Your task to perform on an android device: Open Maps and search for coffee Image 0: 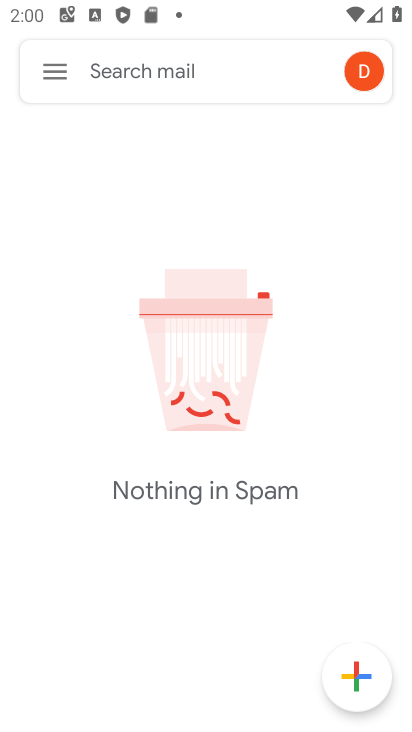
Step 0: drag from (246, 574) to (264, 186)
Your task to perform on an android device: Open Maps and search for coffee Image 1: 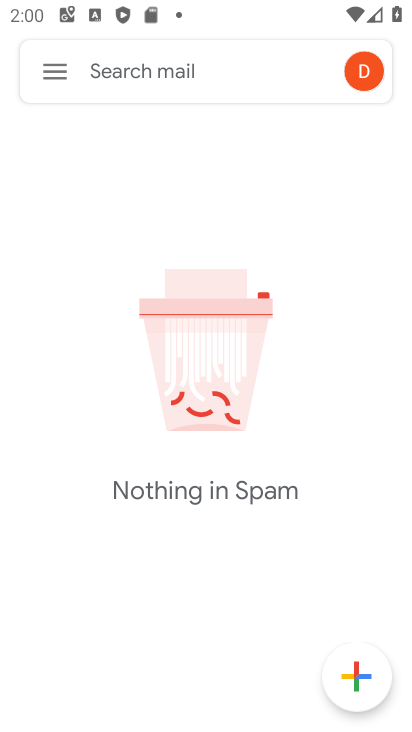
Step 1: click (63, 66)
Your task to perform on an android device: Open Maps and search for coffee Image 2: 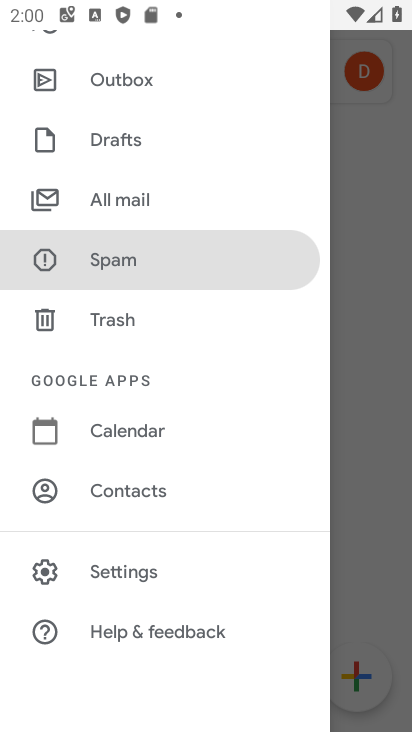
Step 2: press home button
Your task to perform on an android device: Open Maps and search for coffee Image 3: 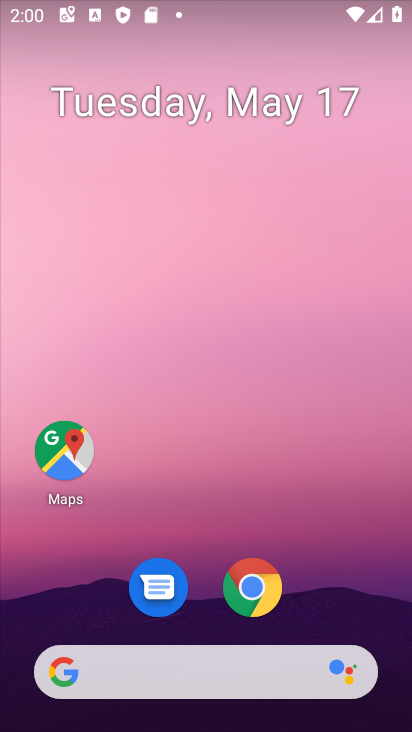
Step 3: drag from (216, 629) to (187, 196)
Your task to perform on an android device: Open Maps and search for coffee Image 4: 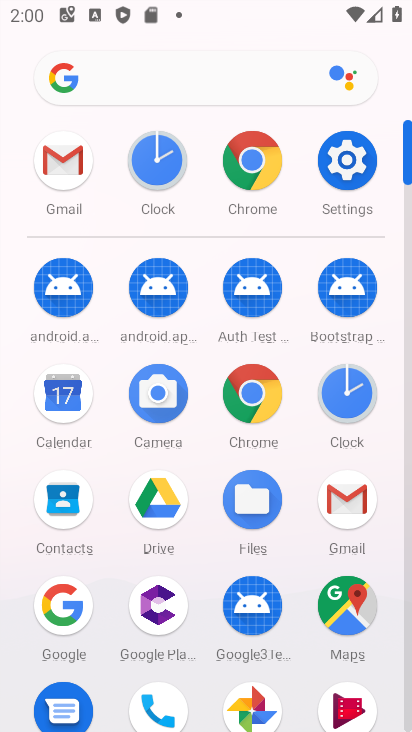
Step 4: click (339, 609)
Your task to perform on an android device: Open Maps and search for coffee Image 5: 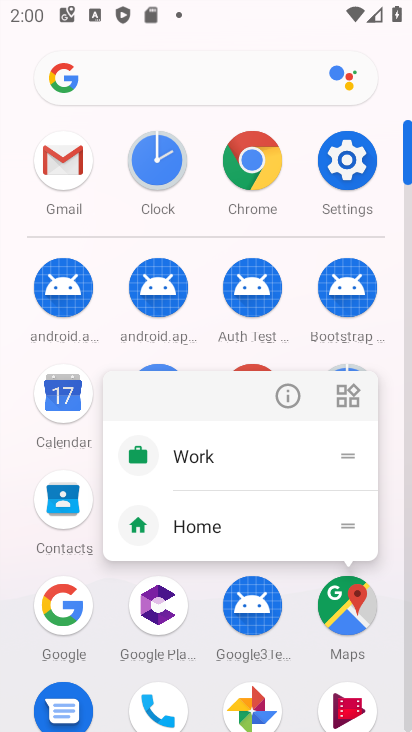
Step 5: click (296, 389)
Your task to perform on an android device: Open Maps and search for coffee Image 6: 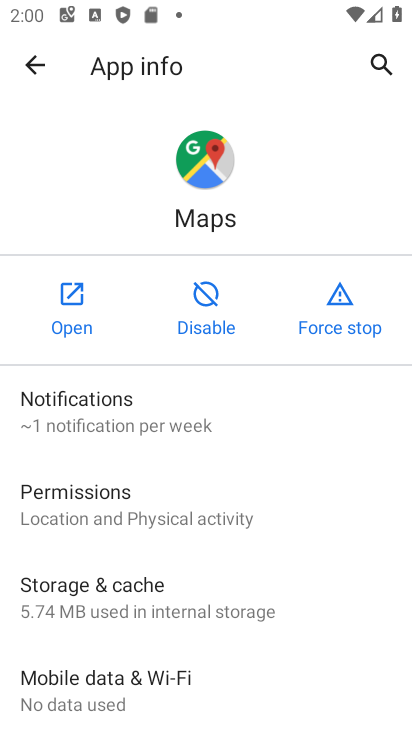
Step 6: click (52, 271)
Your task to perform on an android device: Open Maps and search for coffee Image 7: 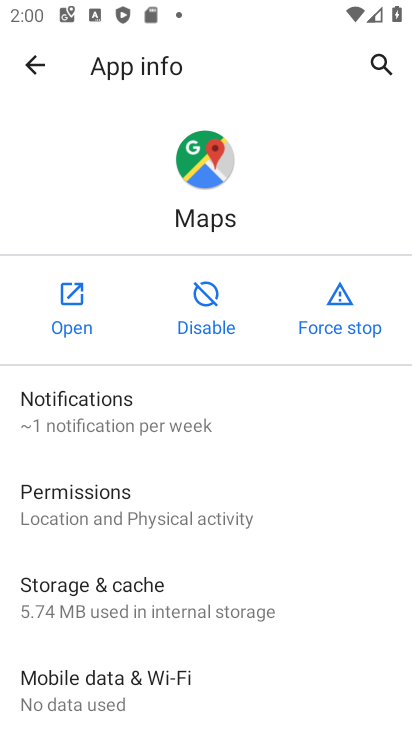
Step 7: click (94, 307)
Your task to perform on an android device: Open Maps and search for coffee Image 8: 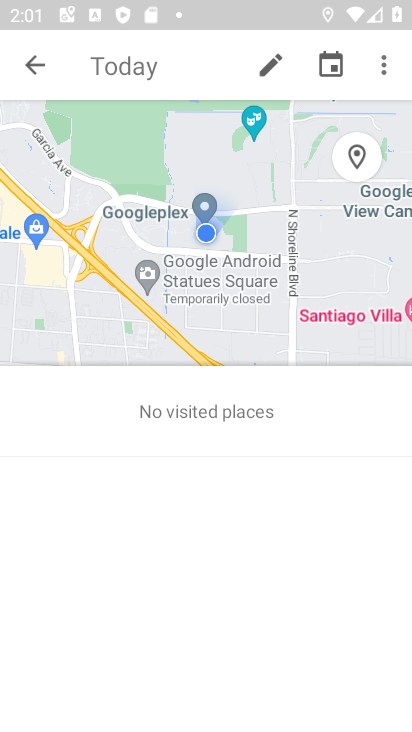
Step 8: drag from (257, 455) to (267, 260)
Your task to perform on an android device: Open Maps and search for coffee Image 9: 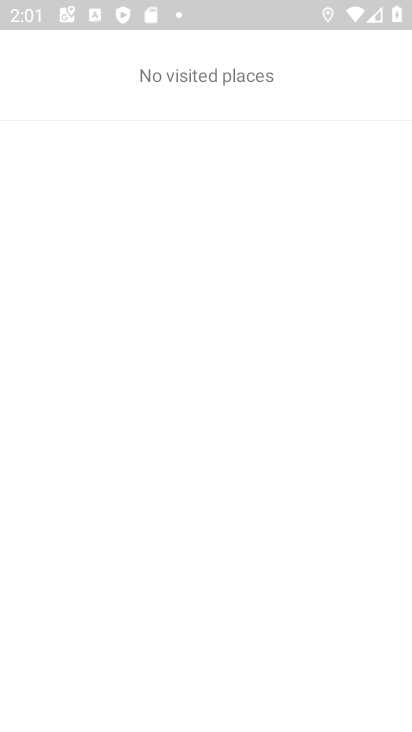
Step 9: drag from (202, 497) to (259, 221)
Your task to perform on an android device: Open Maps and search for coffee Image 10: 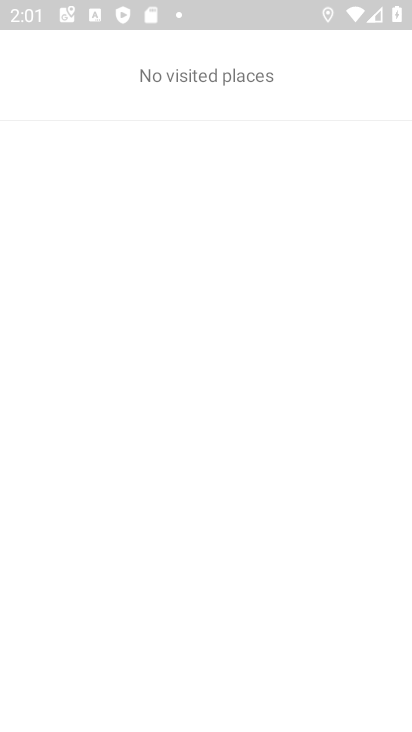
Step 10: click (198, 138)
Your task to perform on an android device: Open Maps and search for coffee Image 11: 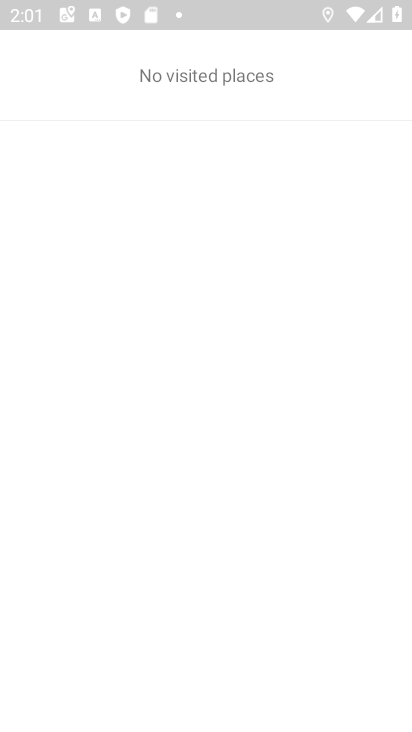
Step 11: drag from (274, 242) to (383, 713)
Your task to perform on an android device: Open Maps and search for coffee Image 12: 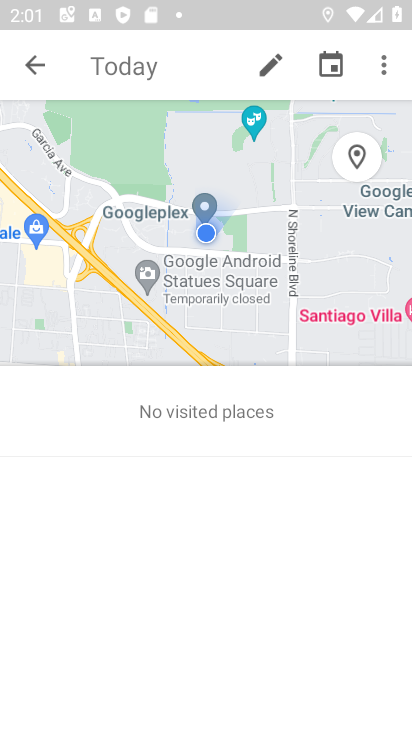
Step 12: click (45, 67)
Your task to perform on an android device: Open Maps and search for coffee Image 13: 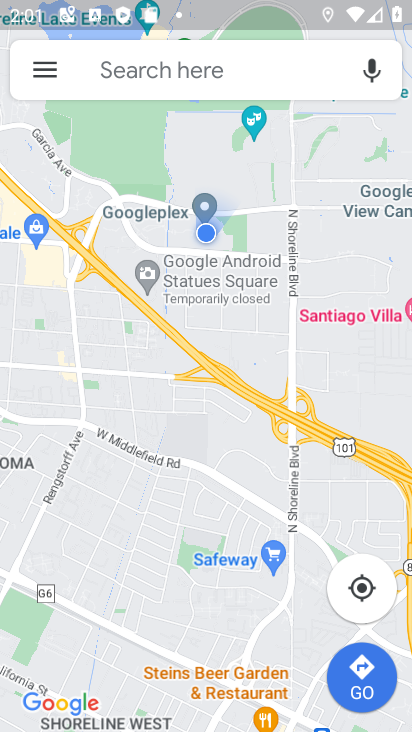
Step 13: click (169, 81)
Your task to perform on an android device: Open Maps and search for coffee Image 14: 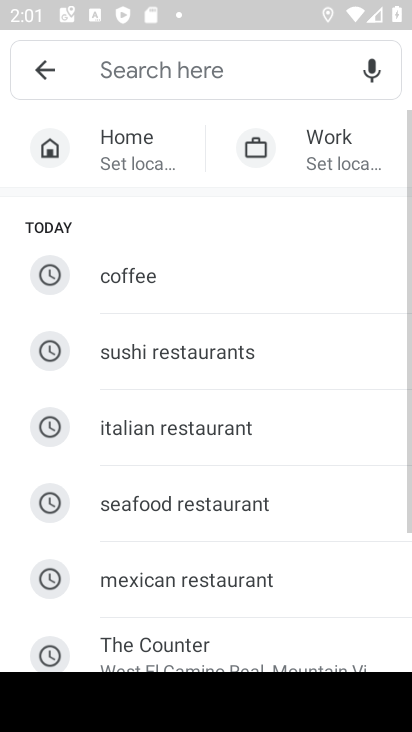
Step 14: click (194, 286)
Your task to perform on an android device: Open Maps and search for coffee Image 15: 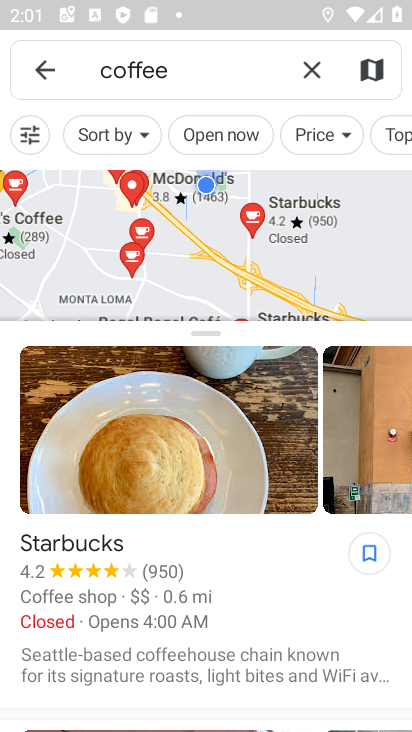
Step 15: task complete